Your task to perform on an android device: Open notification settings Image 0: 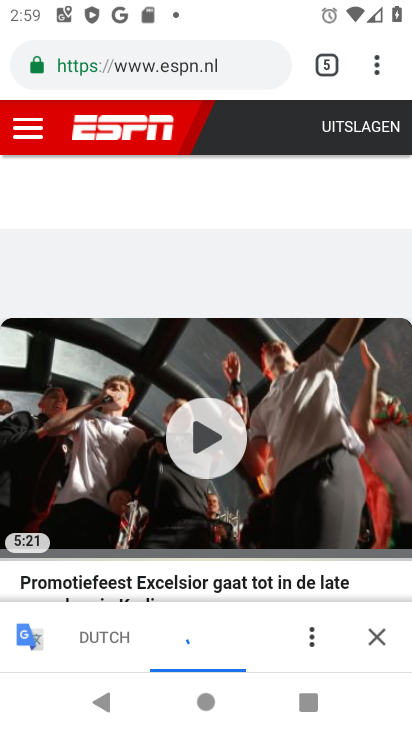
Step 0: press home button
Your task to perform on an android device: Open notification settings Image 1: 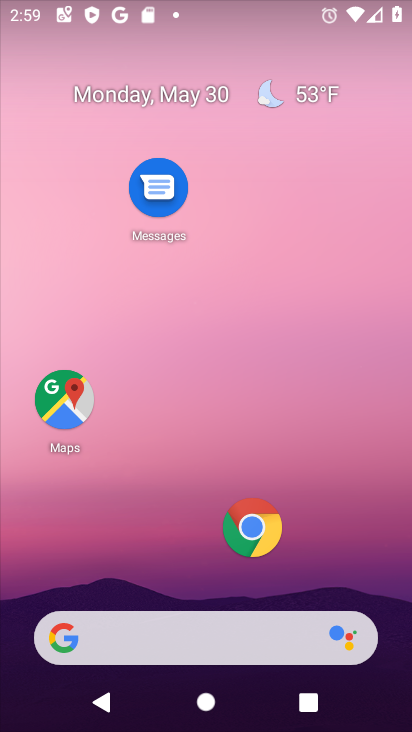
Step 1: drag from (127, 539) to (211, 128)
Your task to perform on an android device: Open notification settings Image 2: 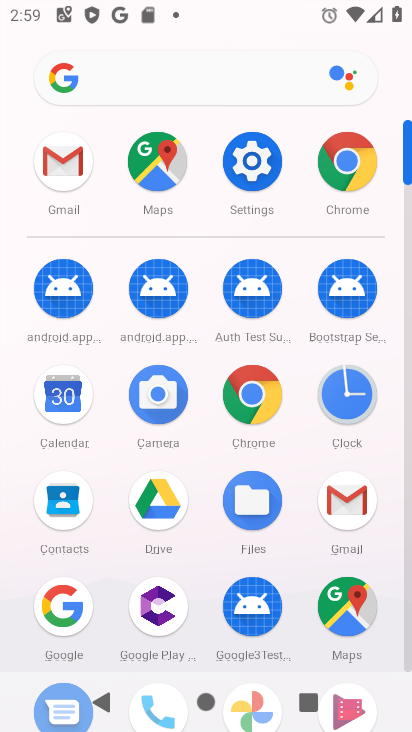
Step 2: drag from (96, 253) to (102, 65)
Your task to perform on an android device: Open notification settings Image 3: 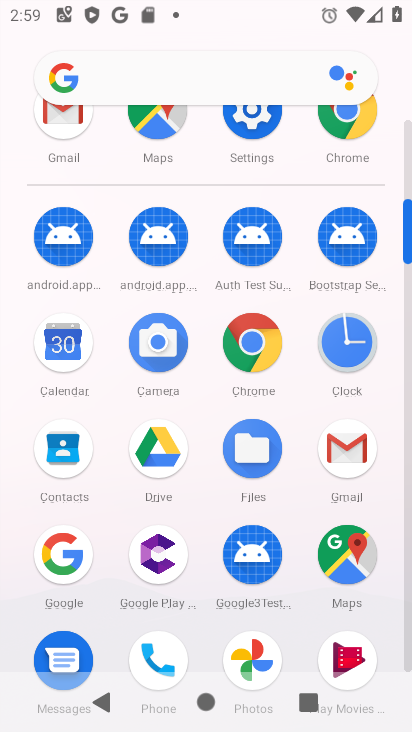
Step 3: drag from (193, 209) to (181, 37)
Your task to perform on an android device: Open notification settings Image 4: 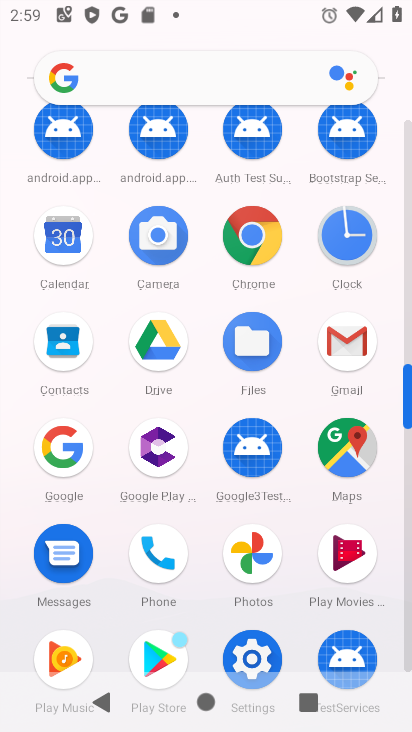
Step 4: click (274, 650)
Your task to perform on an android device: Open notification settings Image 5: 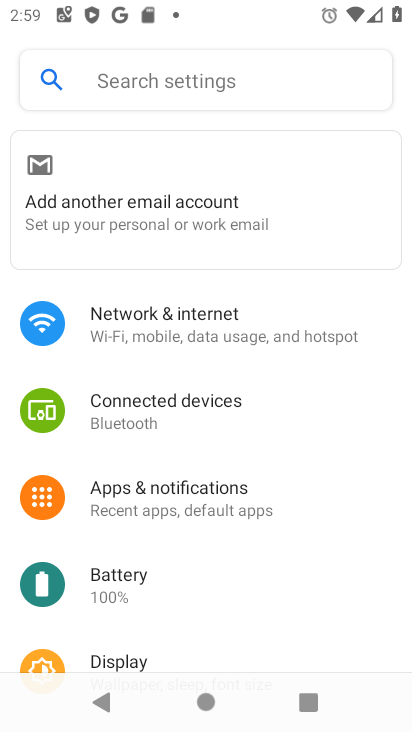
Step 5: click (167, 509)
Your task to perform on an android device: Open notification settings Image 6: 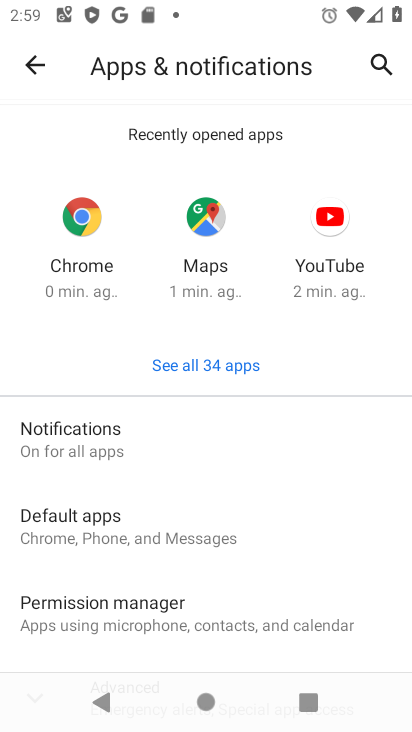
Step 6: task complete